Your task to perform on an android device: Is it going to rain today? Image 0: 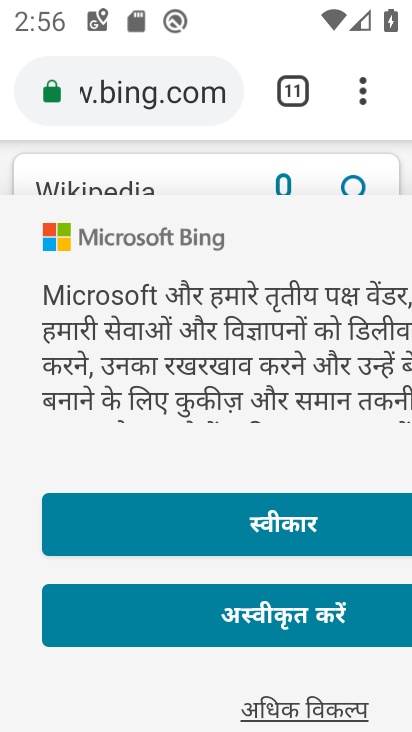
Step 0: press home button
Your task to perform on an android device: Is it going to rain today? Image 1: 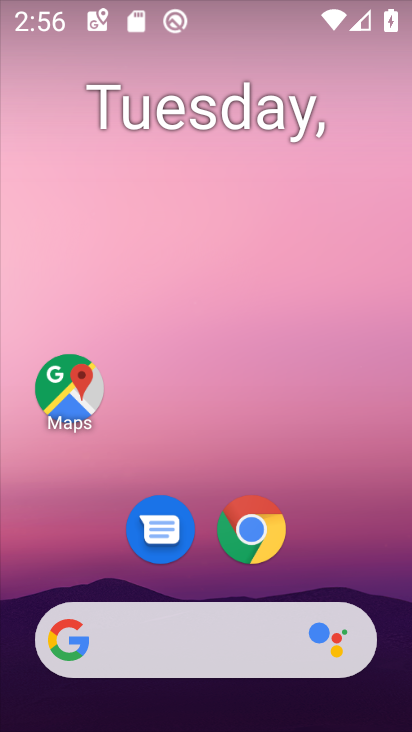
Step 1: click (242, 528)
Your task to perform on an android device: Is it going to rain today? Image 2: 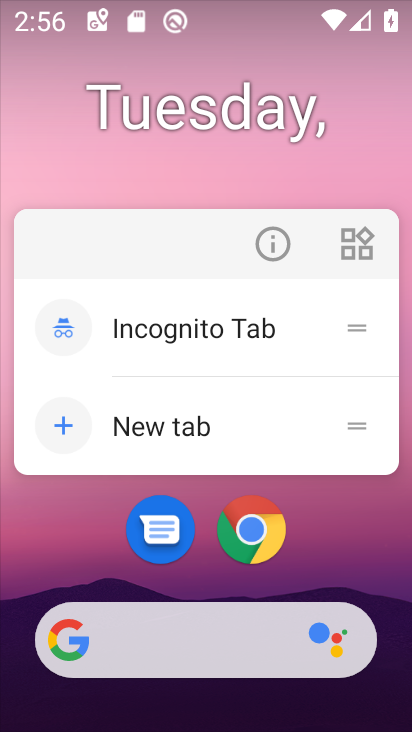
Step 2: click (253, 530)
Your task to perform on an android device: Is it going to rain today? Image 3: 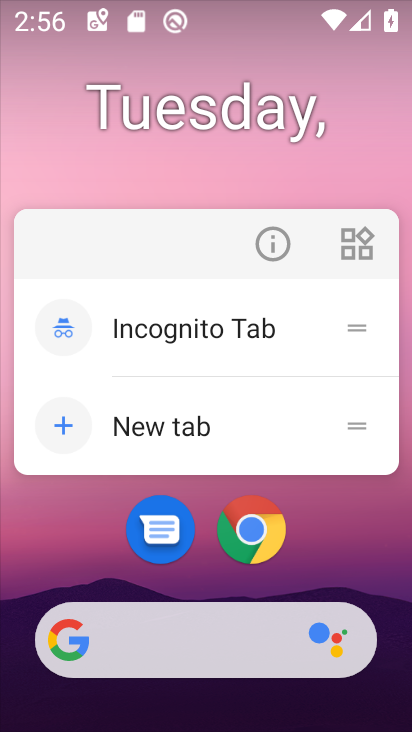
Step 3: click (251, 527)
Your task to perform on an android device: Is it going to rain today? Image 4: 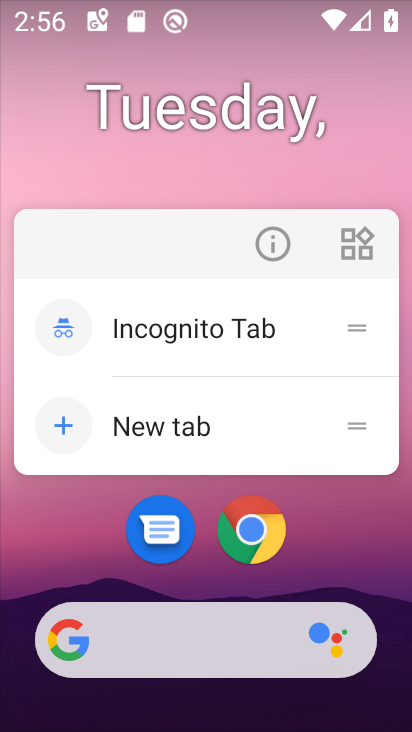
Step 4: click (251, 527)
Your task to perform on an android device: Is it going to rain today? Image 5: 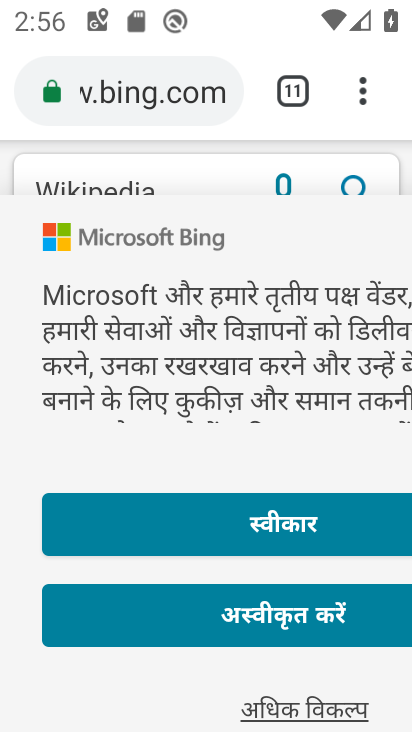
Step 5: click (371, 96)
Your task to perform on an android device: Is it going to rain today? Image 6: 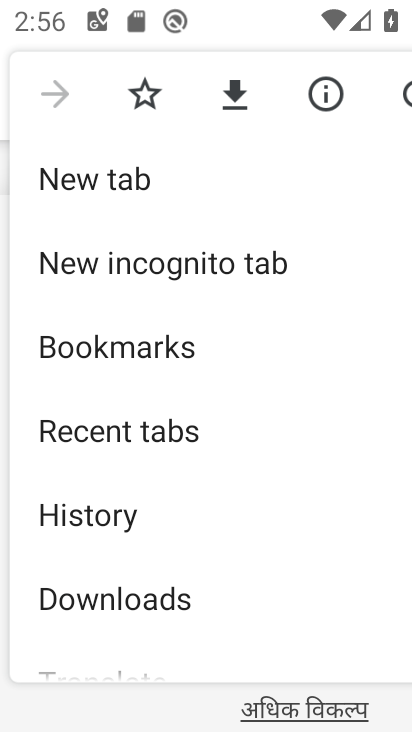
Step 6: click (171, 176)
Your task to perform on an android device: Is it going to rain today? Image 7: 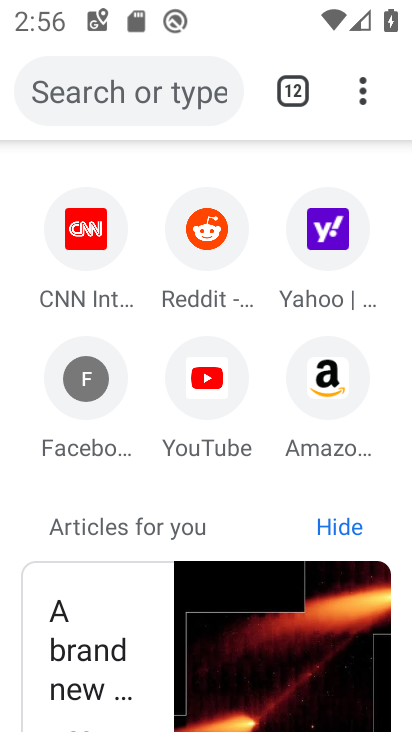
Step 7: click (161, 75)
Your task to perform on an android device: Is it going to rain today? Image 8: 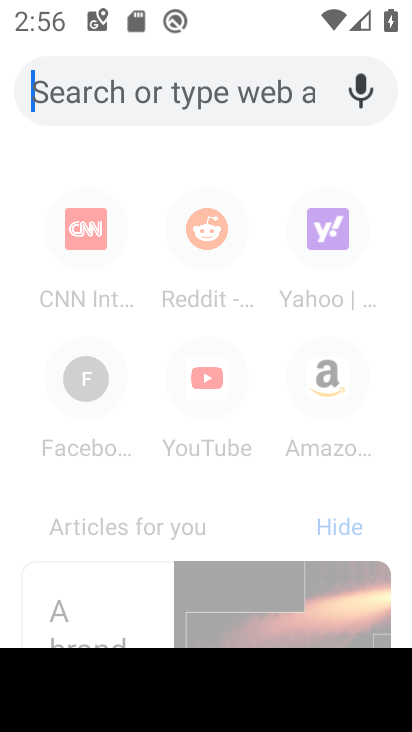
Step 8: type "Is it going to rain today?"
Your task to perform on an android device: Is it going to rain today? Image 9: 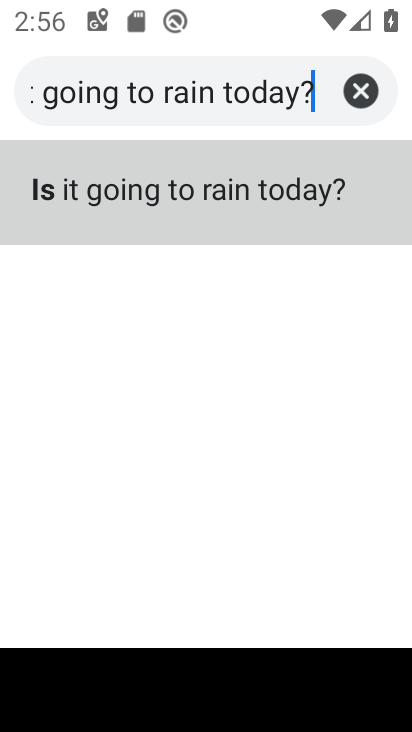
Step 9: click (272, 191)
Your task to perform on an android device: Is it going to rain today? Image 10: 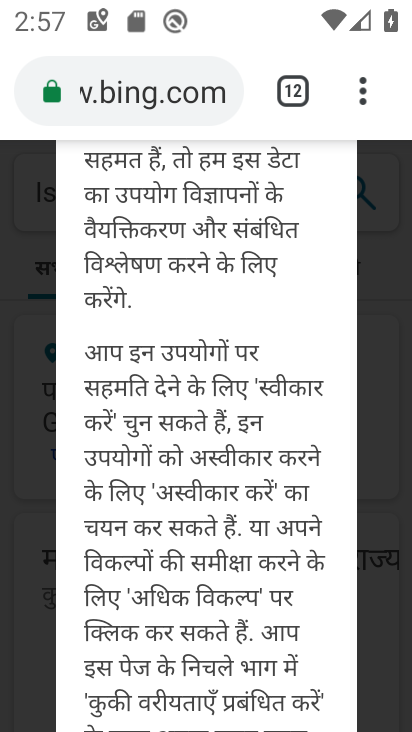
Step 10: task complete